Your task to perform on an android device: Show me the alarms in the clock app Image 0: 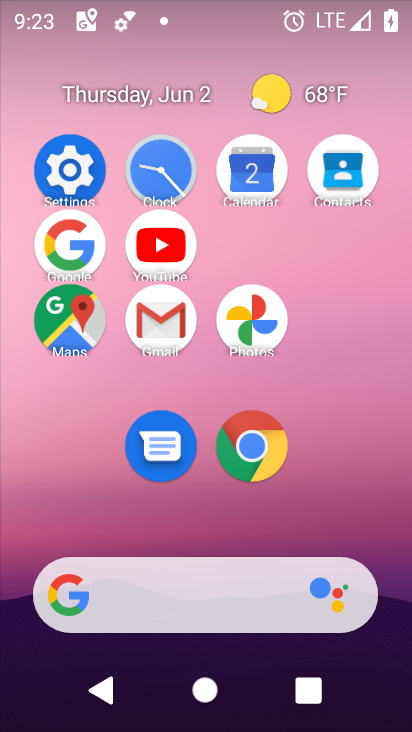
Step 0: click (170, 168)
Your task to perform on an android device: Show me the alarms in the clock app Image 1: 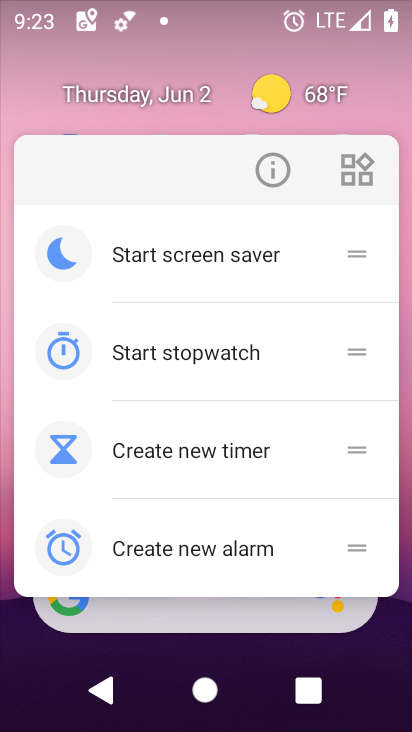
Step 1: click (34, 88)
Your task to perform on an android device: Show me the alarms in the clock app Image 2: 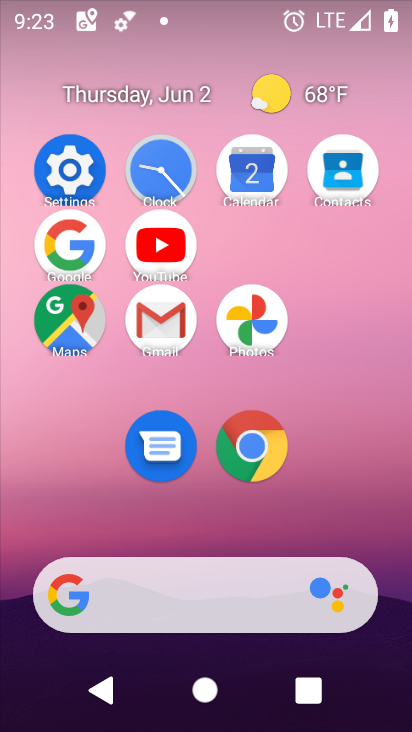
Step 2: click (155, 174)
Your task to perform on an android device: Show me the alarms in the clock app Image 3: 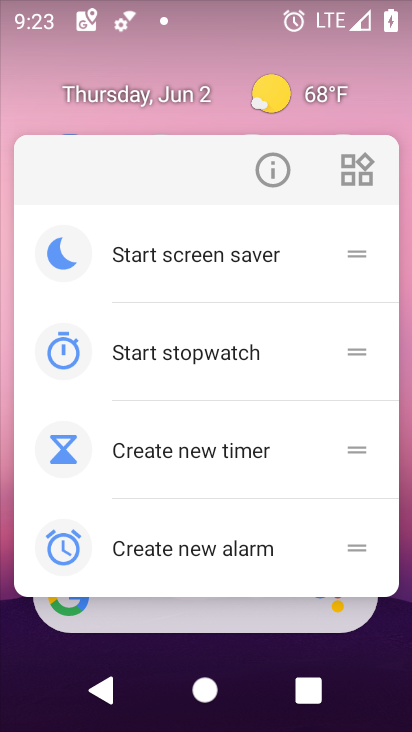
Step 3: click (41, 81)
Your task to perform on an android device: Show me the alarms in the clock app Image 4: 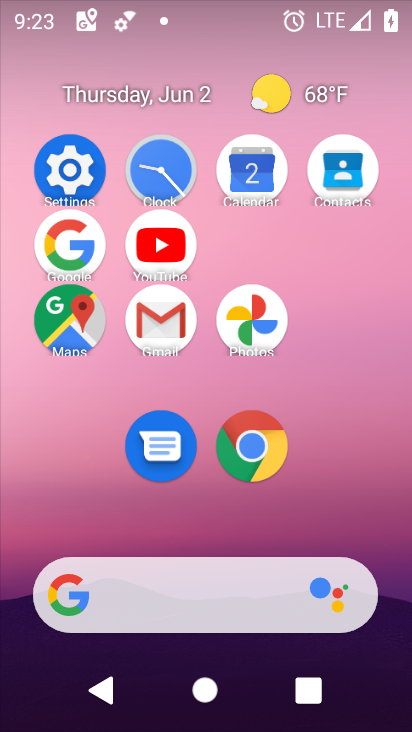
Step 4: click (165, 137)
Your task to perform on an android device: Show me the alarms in the clock app Image 5: 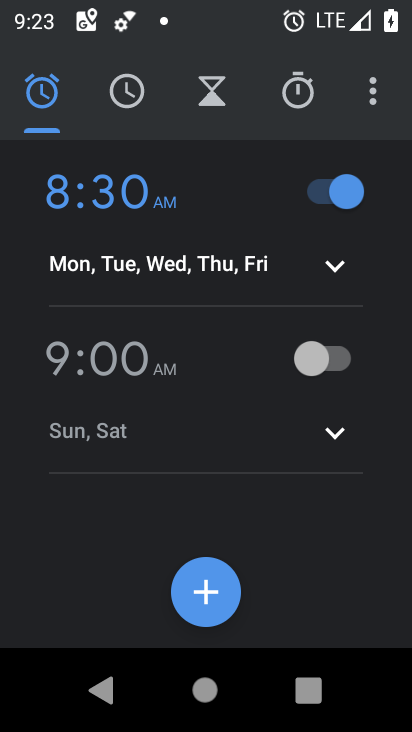
Step 5: task complete